Your task to perform on an android device: turn off notifications in google photos Image 0: 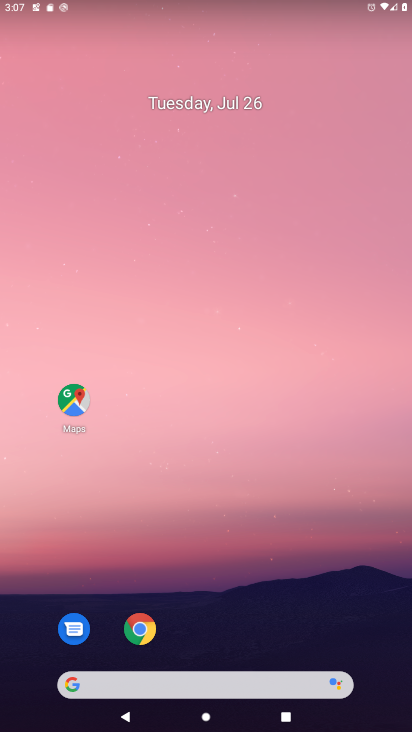
Step 0: drag from (190, 630) to (218, 180)
Your task to perform on an android device: turn off notifications in google photos Image 1: 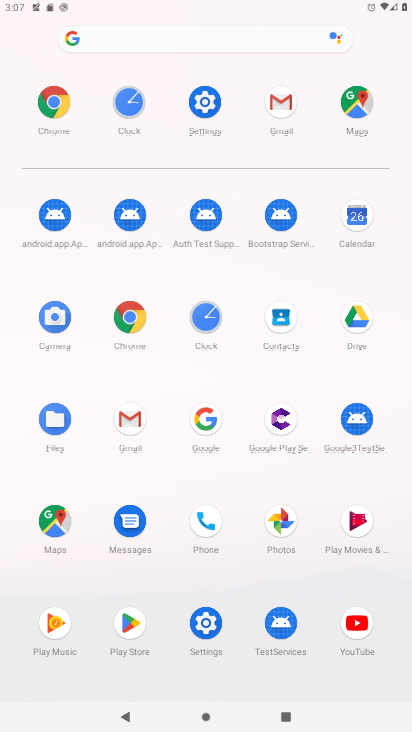
Step 1: click (277, 526)
Your task to perform on an android device: turn off notifications in google photos Image 2: 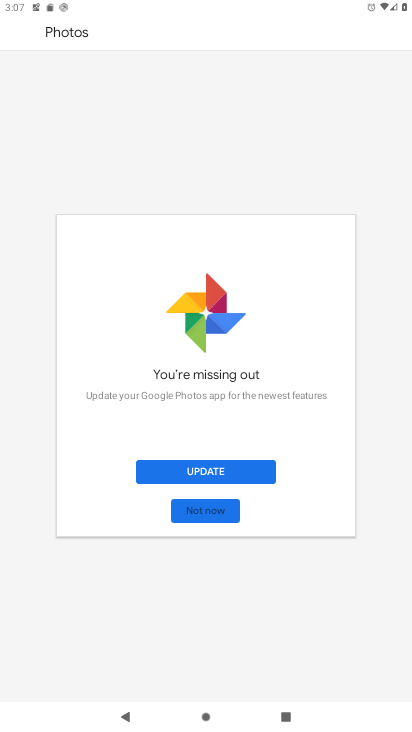
Step 2: click (195, 510)
Your task to perform on an android device: turn off notifications in google photos Image 3: 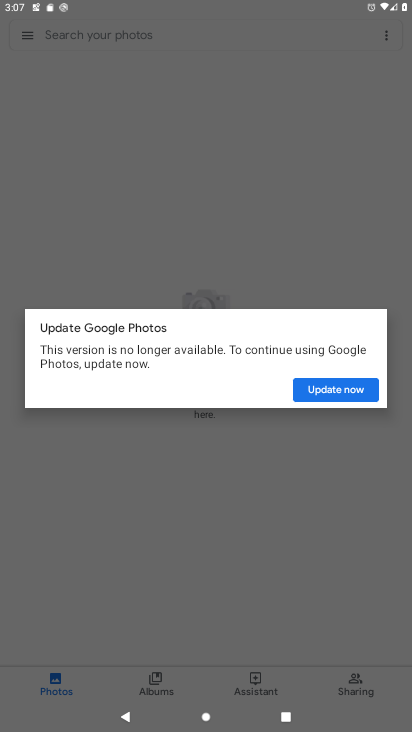
Step 3: click (305, 383)
Your task to perform on an android device: turn off notifications in google photos Image 4: 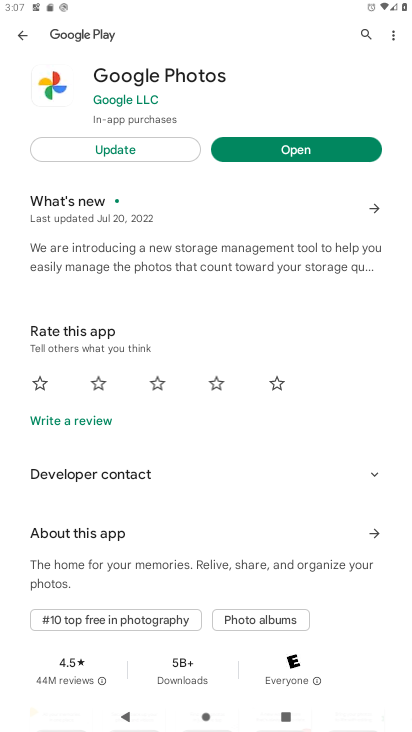
Step 4: click (255, 145)
Your task to perform on an android device: turn off notifications in google photos Image 5: 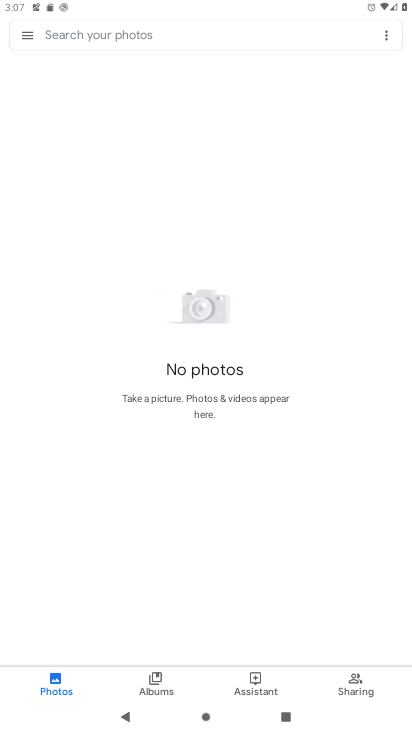
Step 5: click (25, 30)
Your task to perform on an android device: turn off notifications in google photos Image 6: 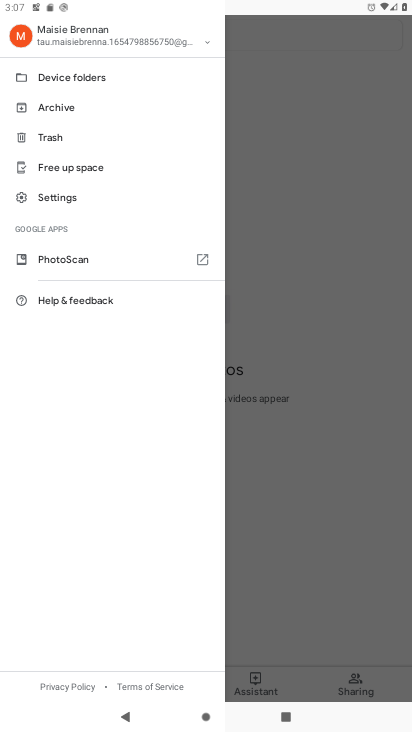
Step 6: click (53, 197)
Your task to perform on an android device: turn off notifications in google photos Image 7: 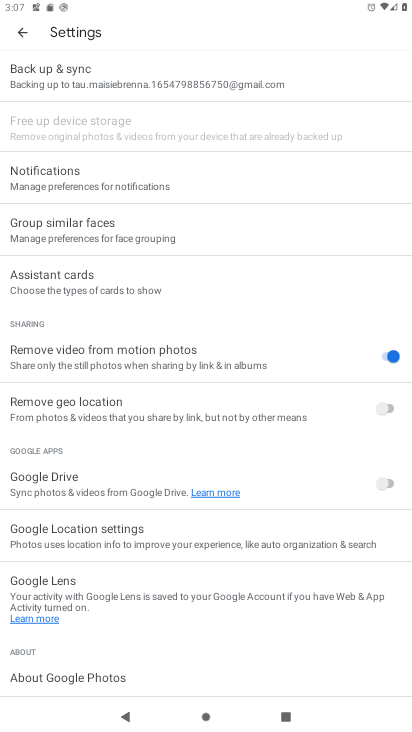
Step 7: click (96, 182)
Your task to perform on an android device: turn off notifications in google photos Image 8: 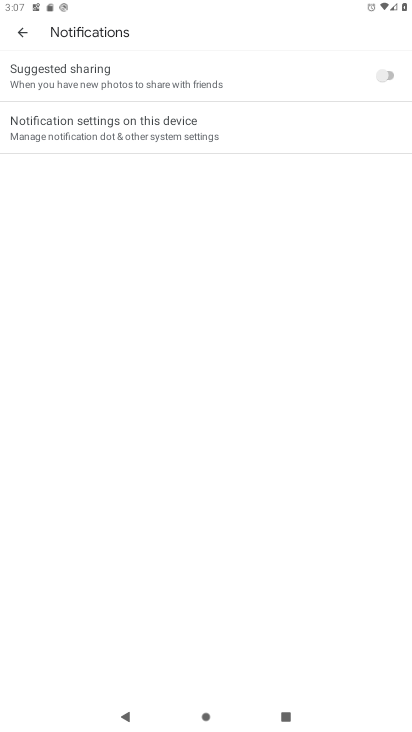
Step 8: click (312, 136)
Your task to perform on an android device: turn off notifications in google photos Image 9: 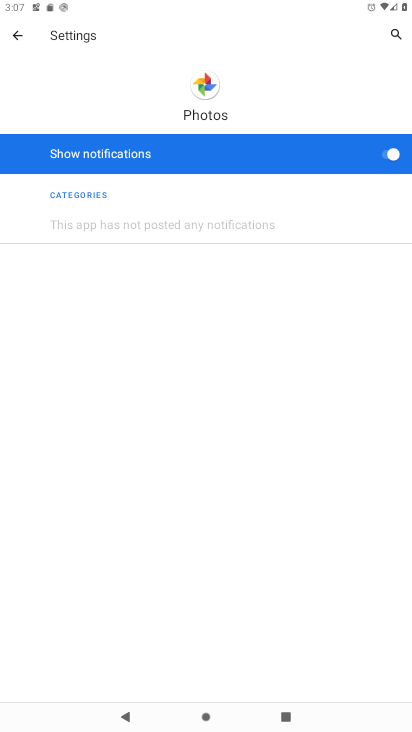
Step 9: click (374, 155)
Your task to perform on an android device: turn off notifications in google photos Image 10: 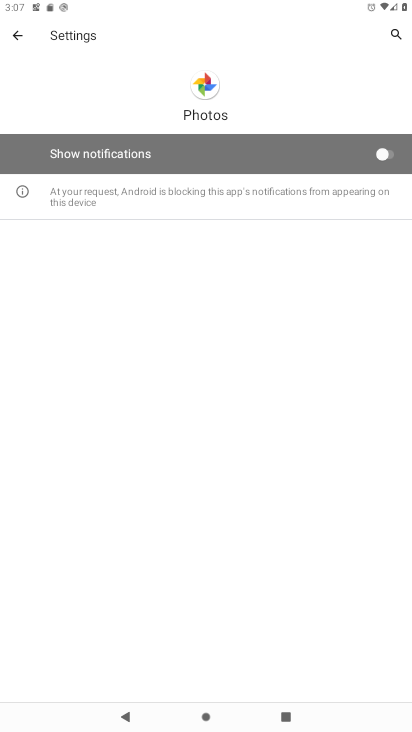
Step 10: task complete